Your task to perform on an android device: What's the weather? Image 0: 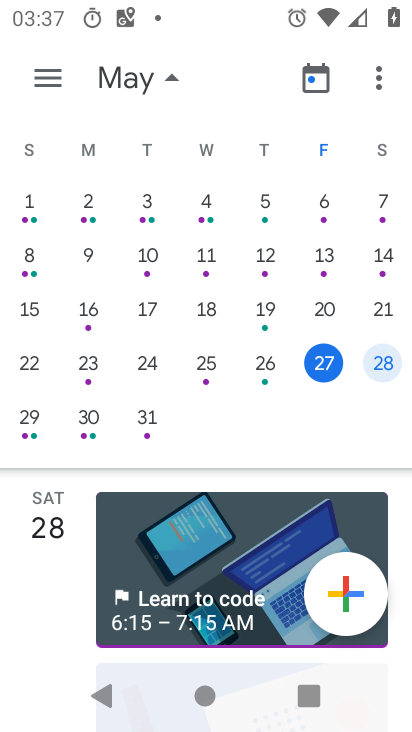
Step 0: press home button
Your task to perform on an android device: What's the weather? Image 1: 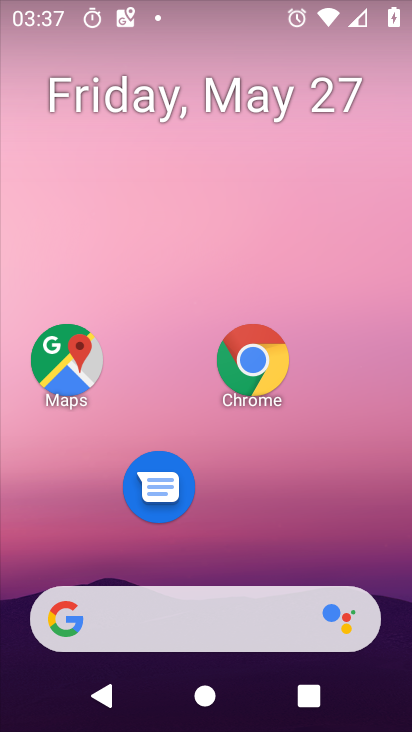
Step 1: click (58, 366)
Your task to perform on an android device: What's the weather? Image 2: 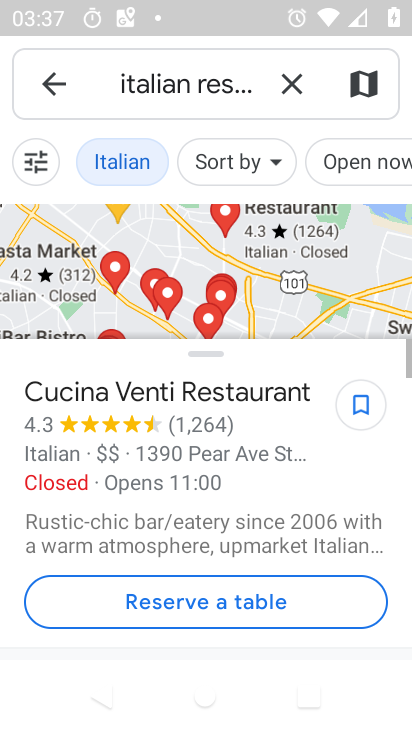
Step 2: press home button
Your task to perform on an android device: What's the weather? Image 3: 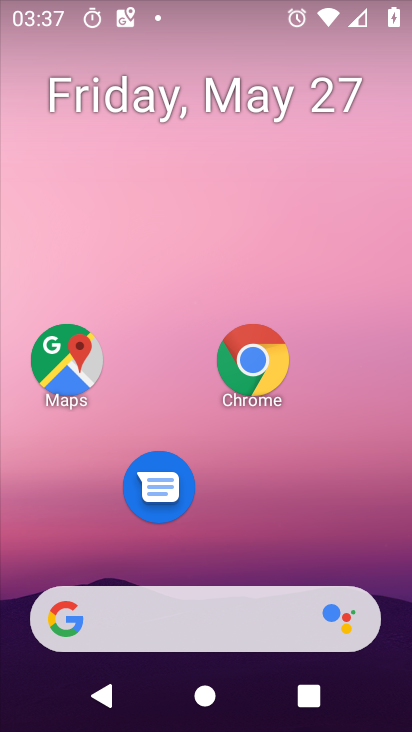
Step 3: drag from (219, 519) to (278, 68)
Your task to perform on an android device: What's the weather? Image 4: 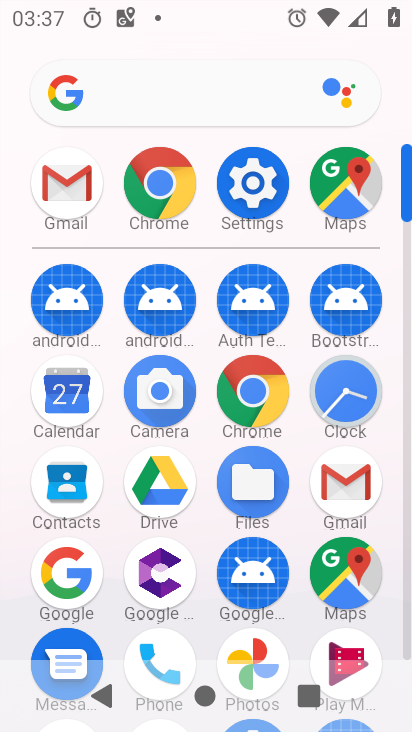
Step 4: drag from (202, 532) to (214, 234)
Your task to perform on an android device: What's the weather? Image 5: 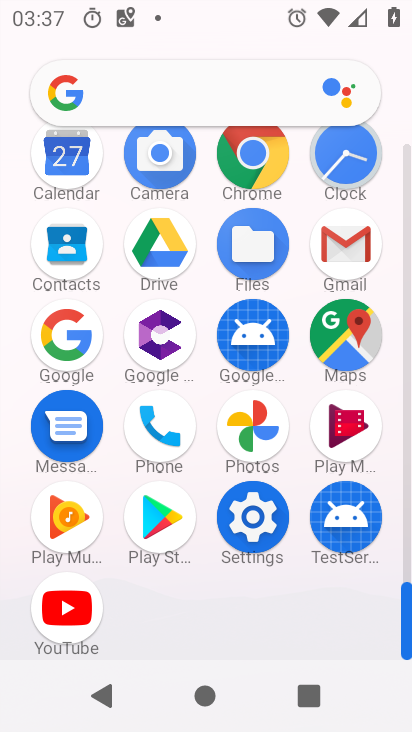
Step 5: click (73, 334)
Your task to perform on an android device: What's the weather? Image 6: 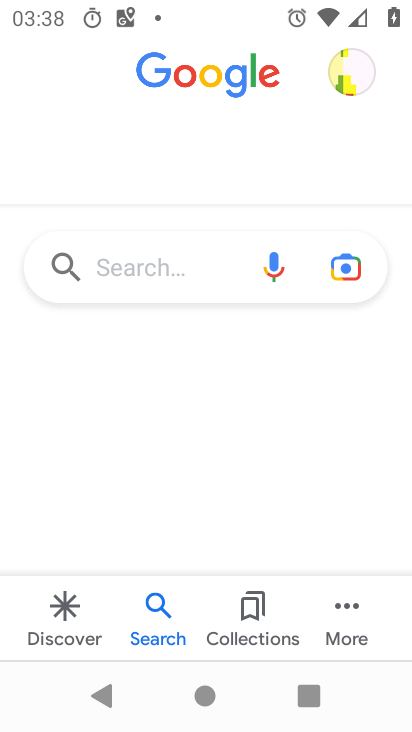
Step 6: click (154, 275)
Your task to perform on an android device: What's the weather? Image 7: 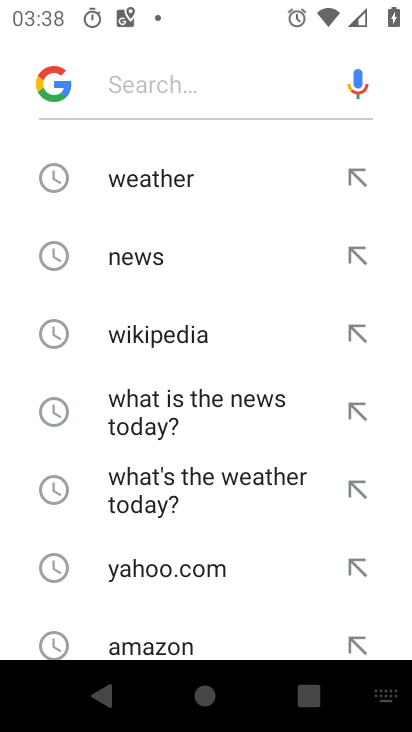
Step 7: click (179, 187)
Your task to perform on an android device: What's the weather? Image 8: 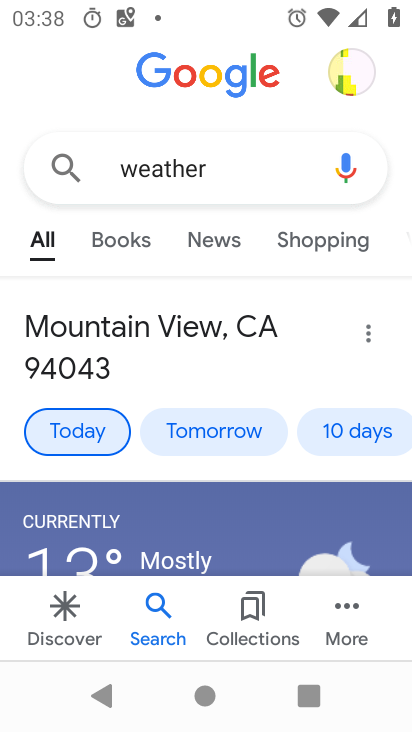
Step 8: task complete